Your task to perform on an android device: change timer sound Image 0: 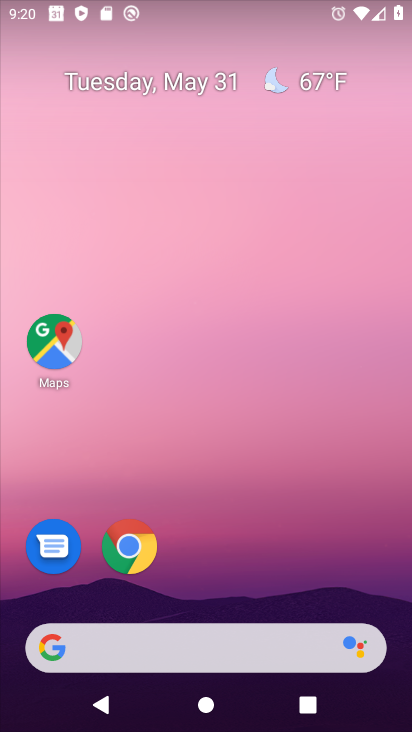
Step 0: drag from (209, 622) to (211, 728)
Your task to perform on an android device: change timer sound Image 1: 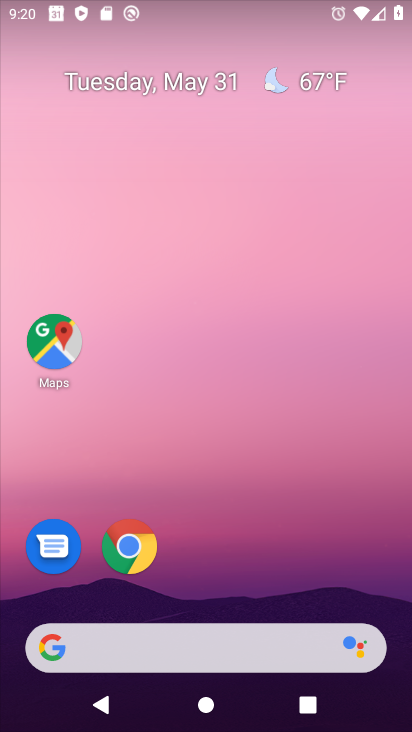
Step 1: drag from (196, 588) to (398, 11)
Your task to perform on an android device: change timer sound Image 2: 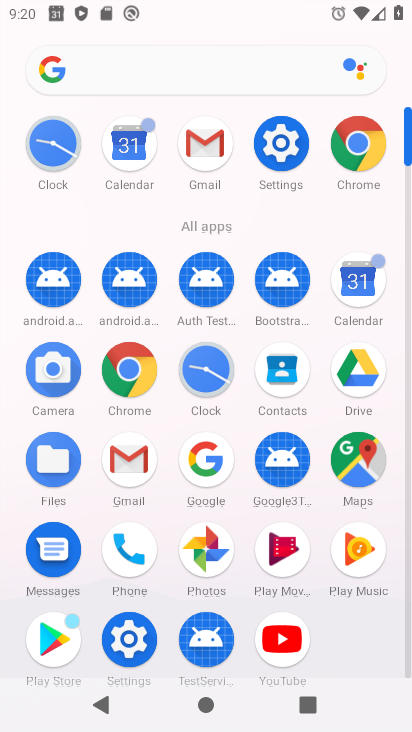
Step 2: click (201, 376)
Your task to perform on an android device: change timer sound Image 3: 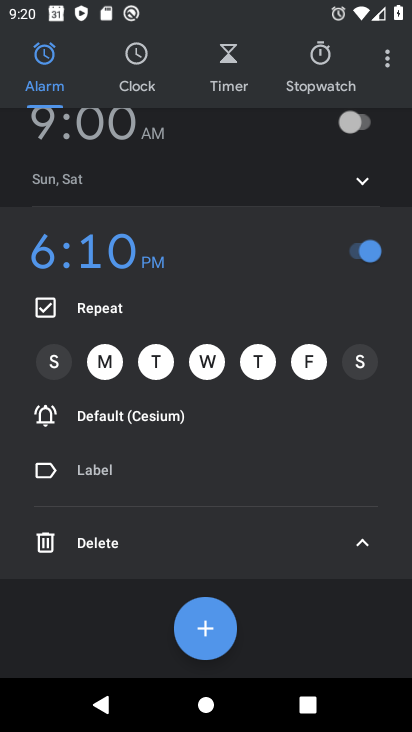
Step 3: click (384, 68)
Your task to perform on an android device: change timer sound Image 4: 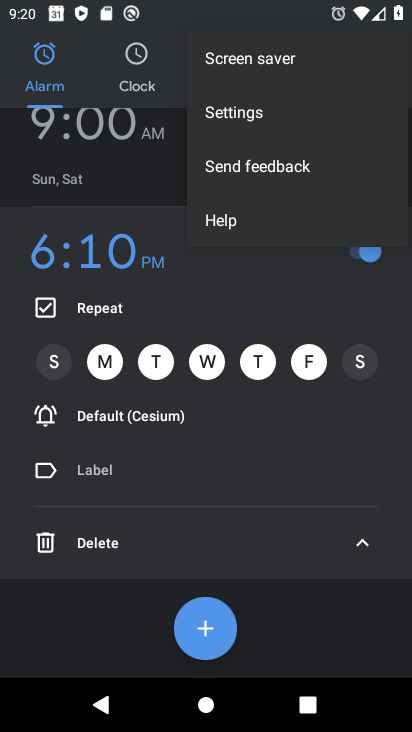
Step 4: click (244, 128)
Your task to perform on an android device: change timer sound Image 5: 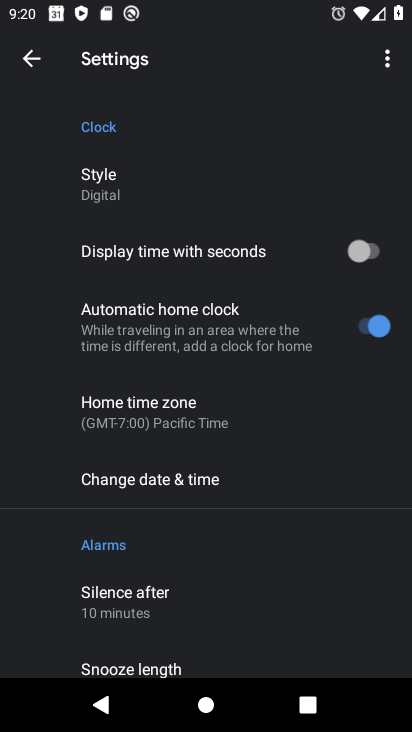
Step 5: drag from (158, 578) to (179, 184)
Your task to perform on an android device: change timer sound Image 6: 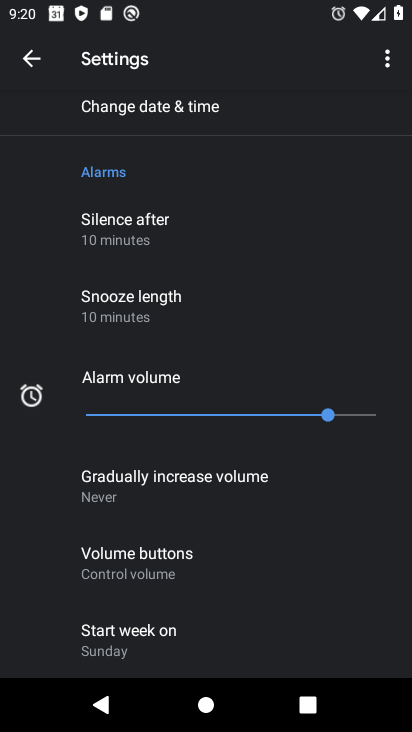
Step 6: drag from (128, 538) to (169, 178)
Your task to perform on an android device: change timer sound Image 7: 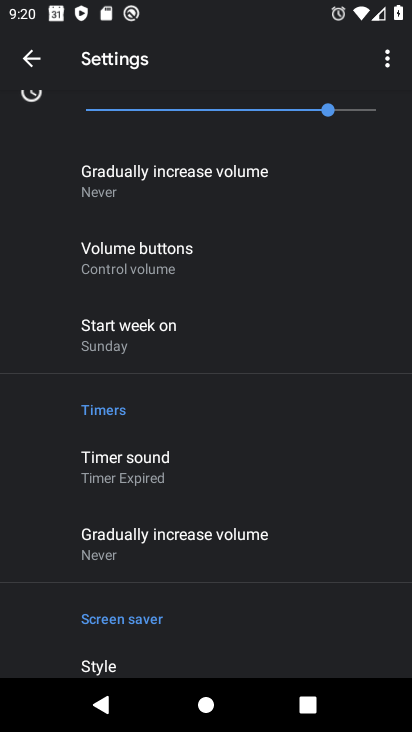
Step 7: click (145, 477)
Your task to perform on an android device: change timer sound Image 8: 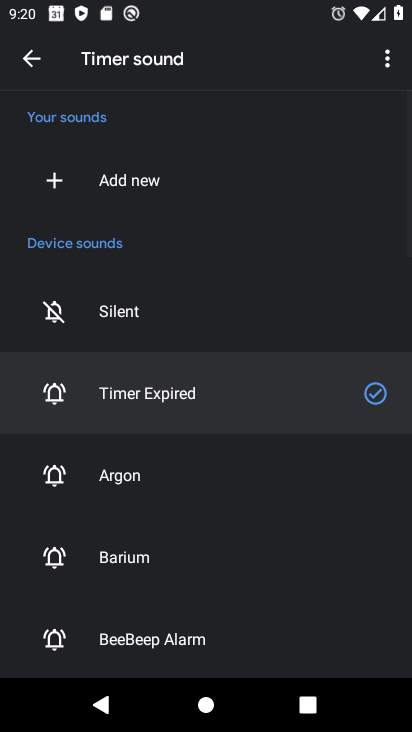
Step 8: click (143, 570)
Your task to perform on an android device: change timer sound Image 9: 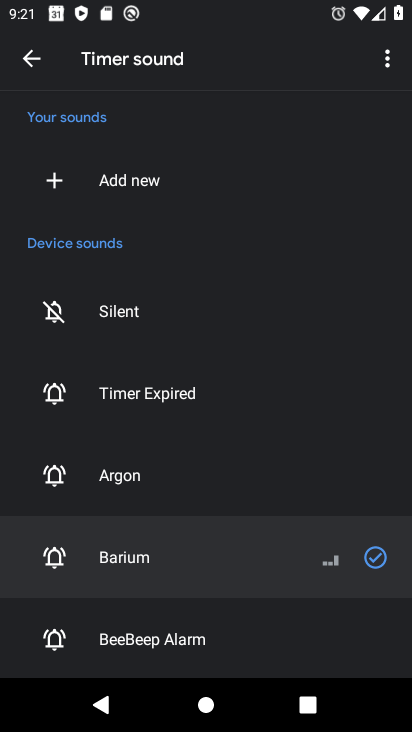
Step 9: task complete